Your task to perform on an android device: Open accessibility settings Image 0: 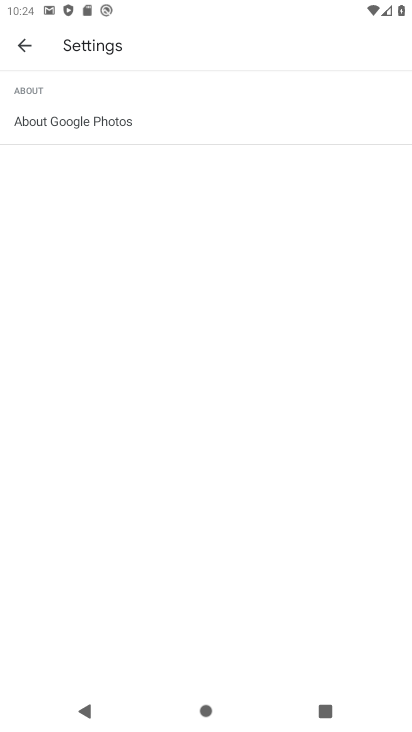
Step 0: drag from (125, 394) to (150, 300)
Your task to perform on an android device: Open accessibility settings Image 1: 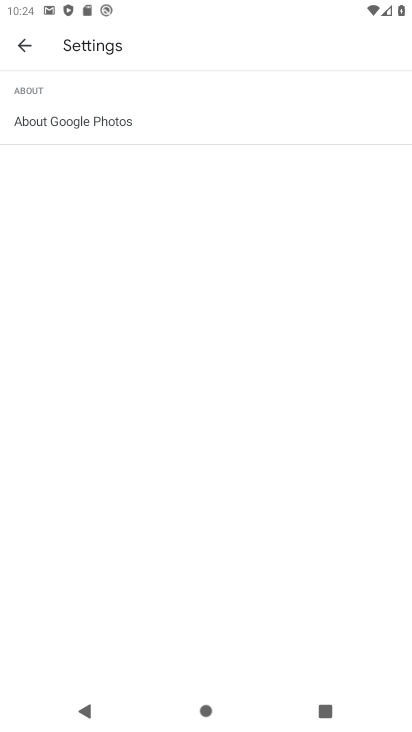
Step 1: drag from (219, 590) to (217, 279)
Your task to perform on an android device: Open accessibility settings Image 2: 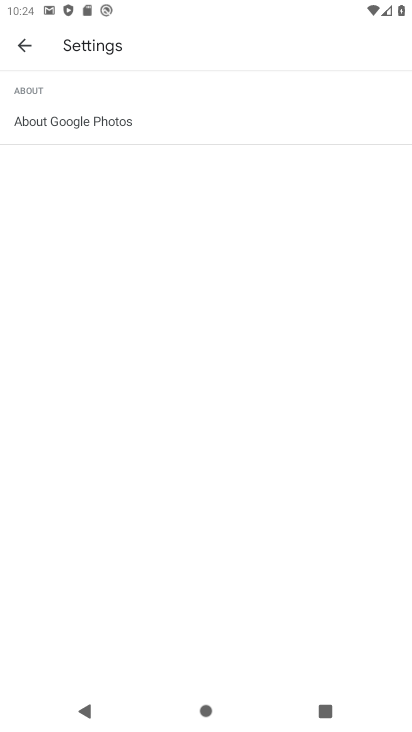
Step 2: drag from (127, 532) to (151, 279)
Your task to perform on an android device: Open accessibility settings Image 3: 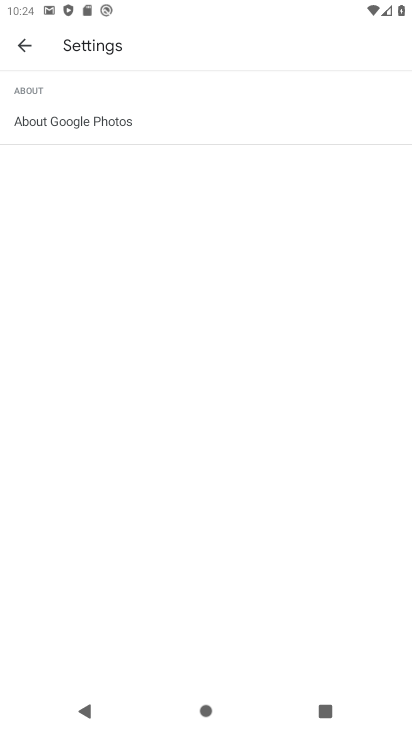
Step 3: drag from (192, 508) to (212, 267)
Your task to perform on an android device: Open accessibility settings Image 4: 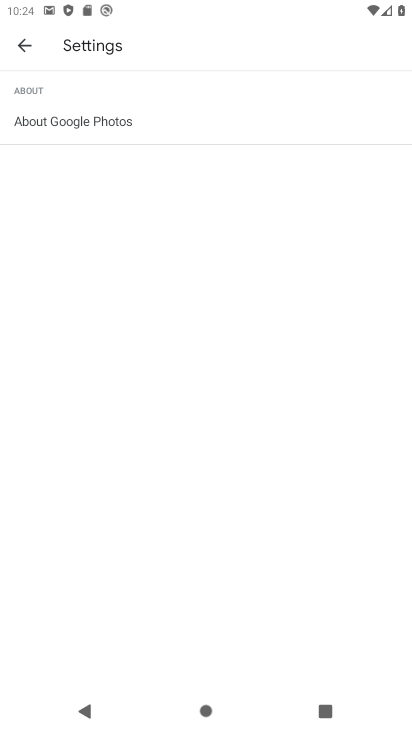
Step 4: press home button
Your task to perform on an android device: Open accessibility settings Image 5: 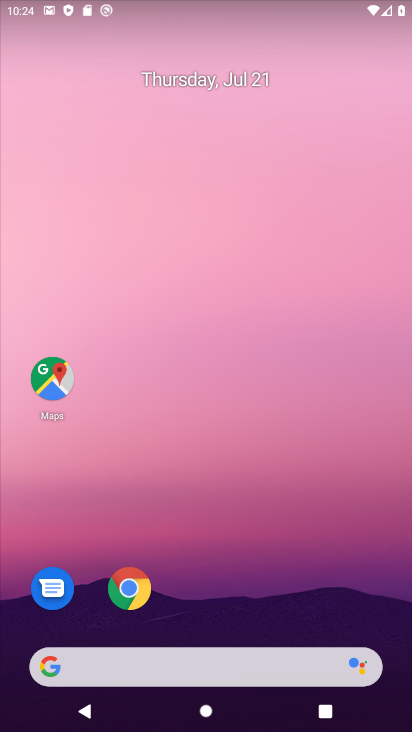
Step 5: drag from (212, 527) to (229, 129)
Your task to perform on an android device: Open accessibility settings Image 6: 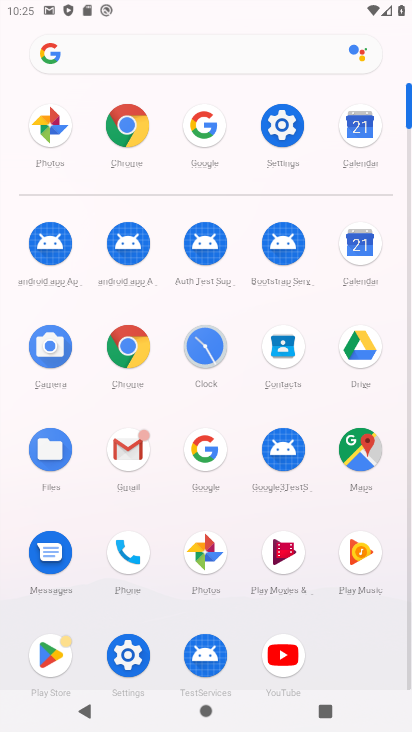
Step 6: click (115, 654)
Your task to perform on an android device: Open accessibility settings Image 7: 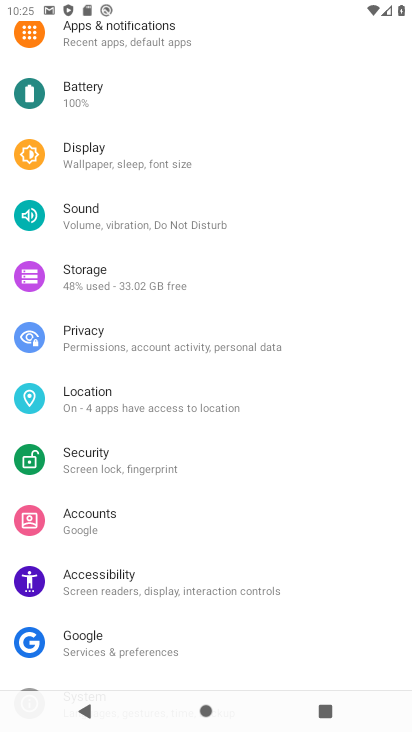
Step 7: drag from (170, 637) to (245, 193)
Your task to perform on an android device: Open accessibility settings Image 8: 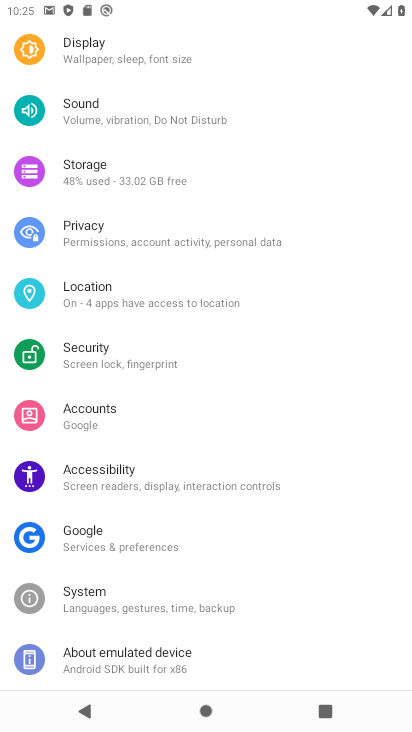
Step 8: click (125, 478)
Your task to perform on an android device: Open accessibility settings Image 9: 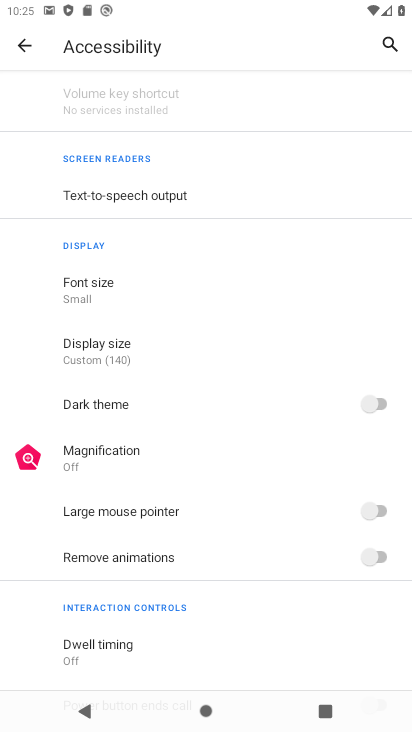
Step 9: task complete